Your task to perform on an android device: Go to CNN.com Image 0: 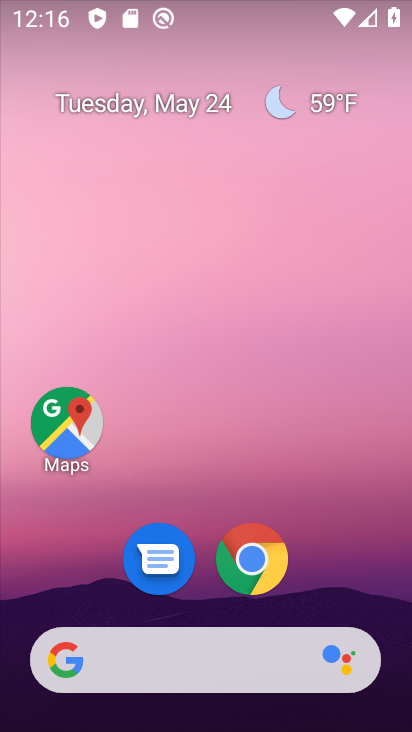
Step 0: drag from (378, 652) to (274, 64)
Your task to perform on an android device: Go to CNN.com Image 1: 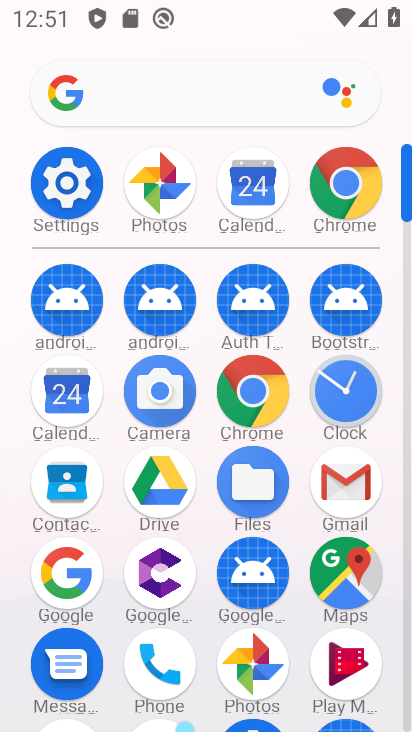
Step 1: click (50, 573)
Your task to perform on an android device: Go to CNN.com Image 2: 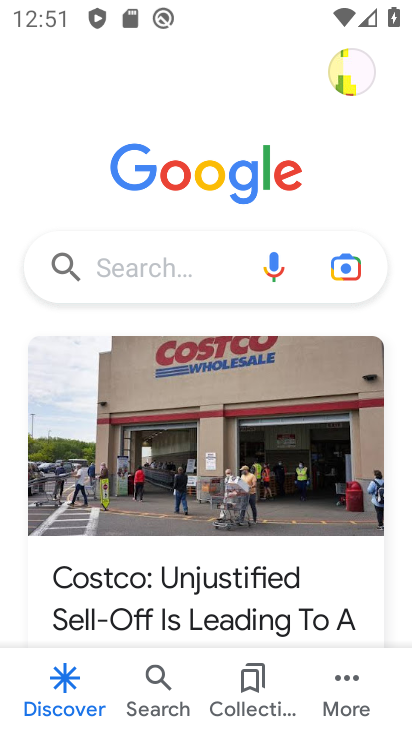
Step 2: click (134, 256)
Your task to perform on an android device: Go to CNN.com Image 3: 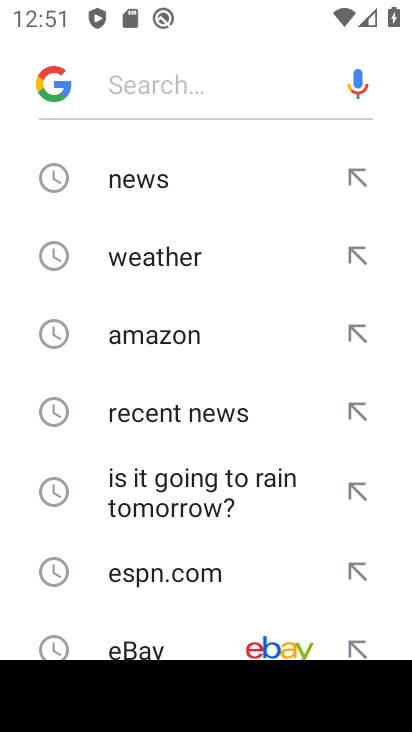
Step 3: drag from (138, 615) to (190, 138)
Your task to perform on an android device: Go to CNN.com Image 4: 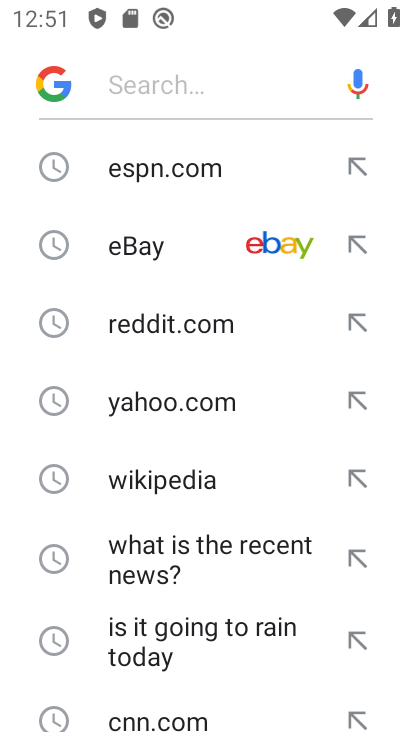
Step 4: click (164, 716)
Your task to perform on an android device: Go to CNN.com Image 5: 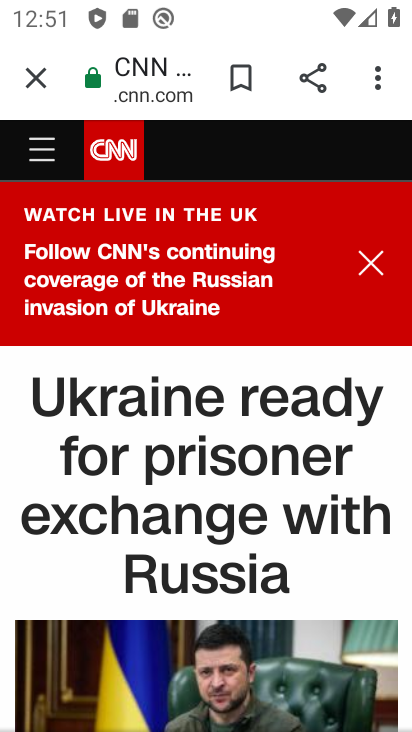
Step 5: task complete